Your task to perform on an android device: open chrome privacy settings Image 0: 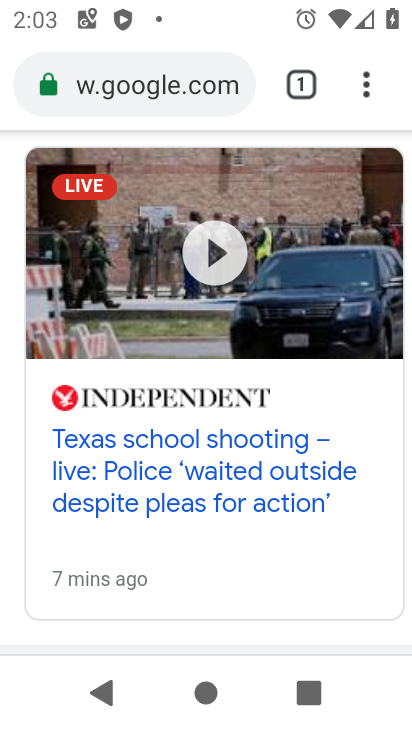
Step 0: press home button
Your task to perform on an android device: open chrome privacy settings Image 1: 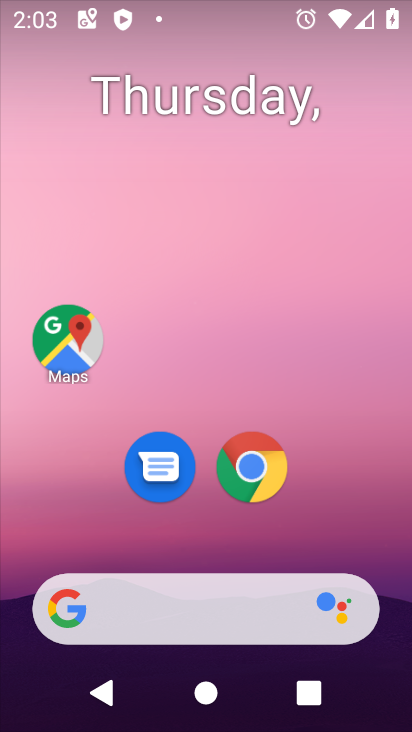
Step 1: drag from (362, 530) to (305, 129)
Your task to perform on an android device: open chrome privacy settings Image 2: 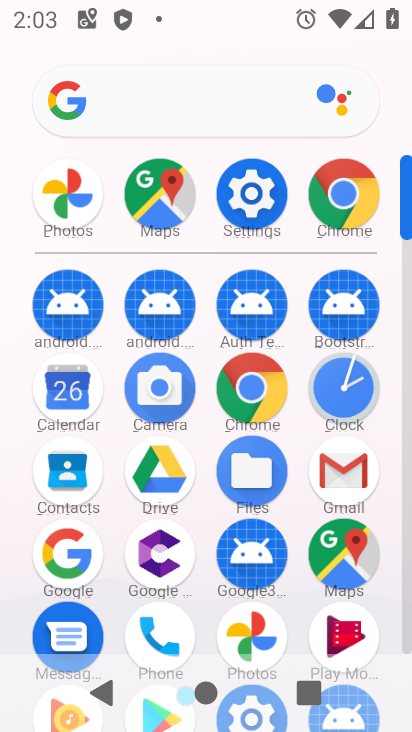
Step 2: click (231, 411)
Your task to perform on an android device: open chrome privacy settings Image 3: 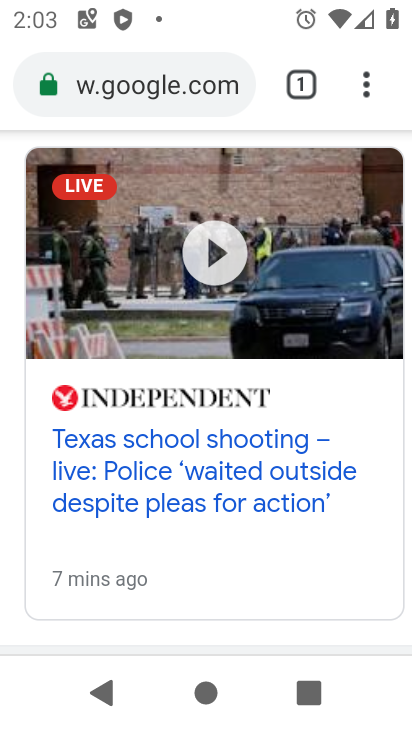
Step 3: drag from (364, 94) to (193, 523)
Your task to perform on an android device: open chrome privacy settings Image 4: 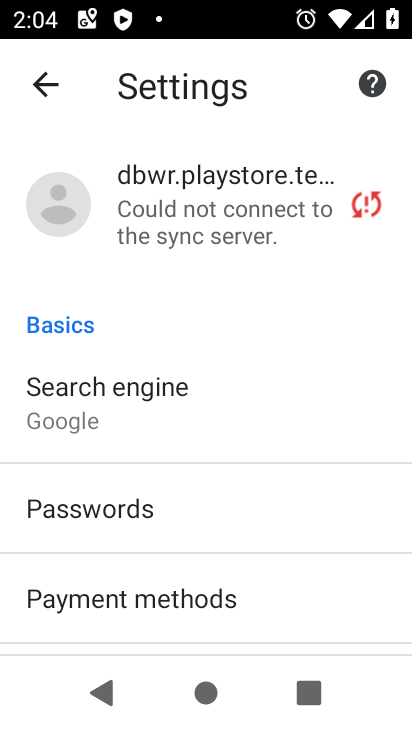
Step 4: drag from (304, 616) to (269, 240)
Your task to perform on an android device: open chrome privacy settings Image 5: 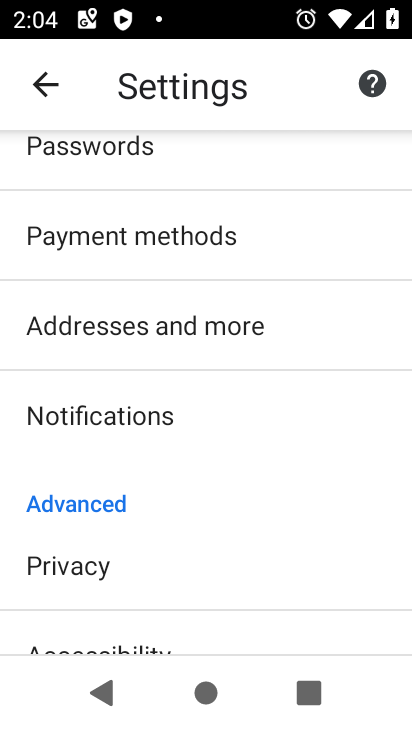
Step 5: click (171, 578)
Your task to perform on an android device: open chrome privacy settings Image 6: 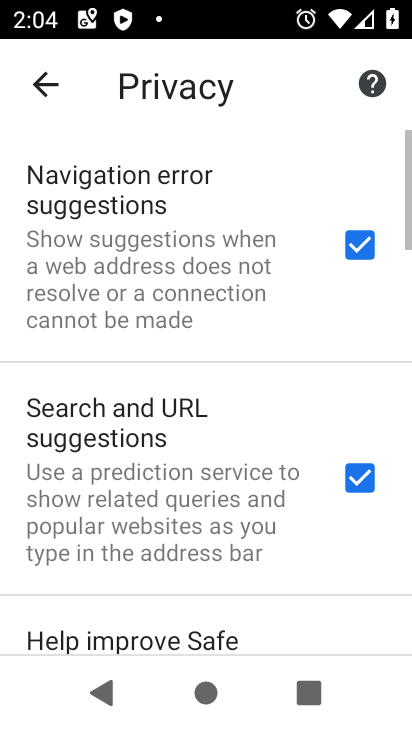
Step 6: task complete